Your task to perform on an android device: Open battery settings Image 0: 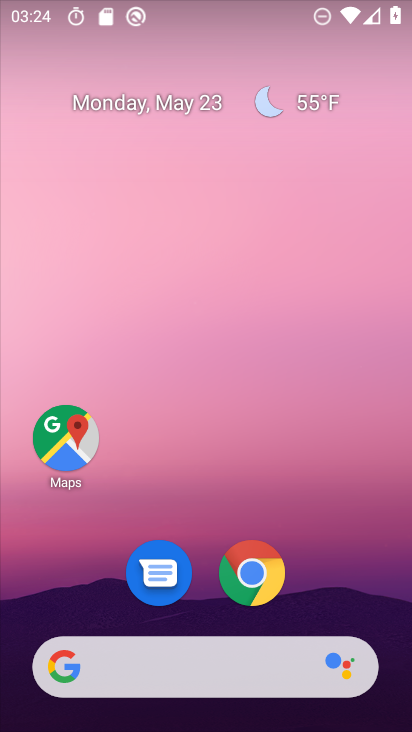
Step 0: drag from (339, 580) to (225, 54)
Your task to perform on an android device: Open battery settings Image 1: 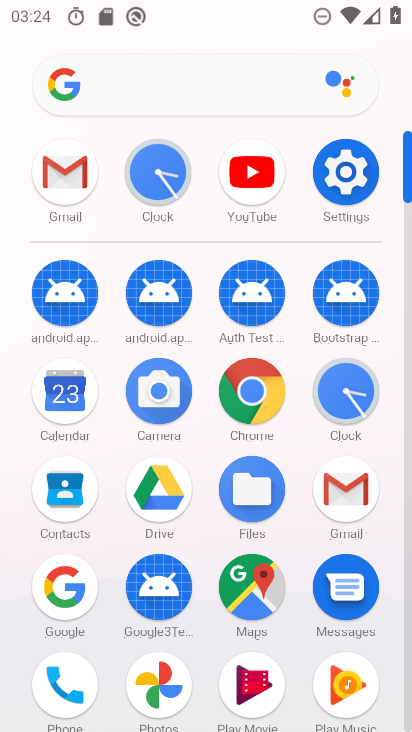
Step 1: click (345, 179)
Your task to perform on an android device: Open battery settings Image 2: 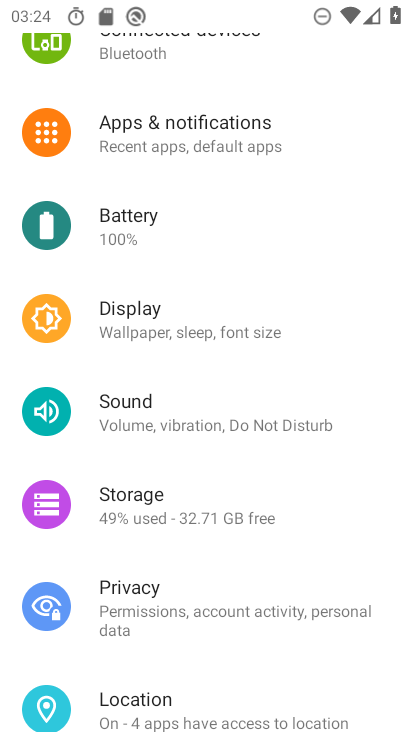
Step 2: click (122, 228)
Your task to perform on an android device: Open battery settings Image 3: 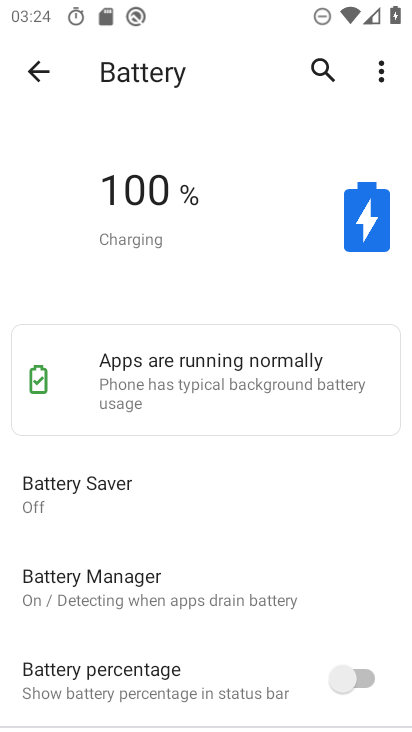
Step 3: task complete